Your task to perform on an android device: Open settings Image 0: 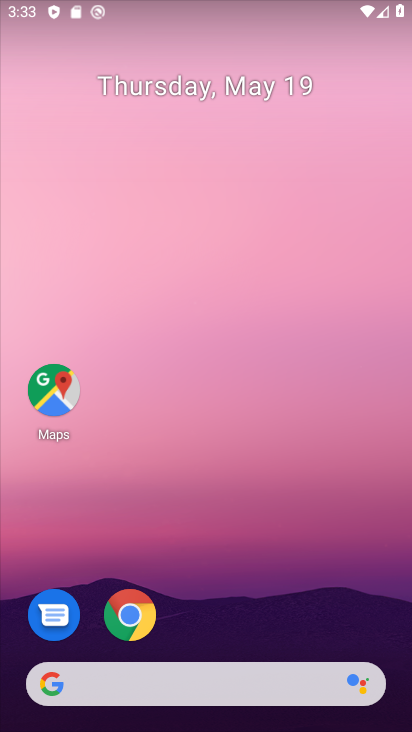
Step 0: drag from (290, 632) to (314, 3)
Your task to perform on an android device: Open settings Image 1: 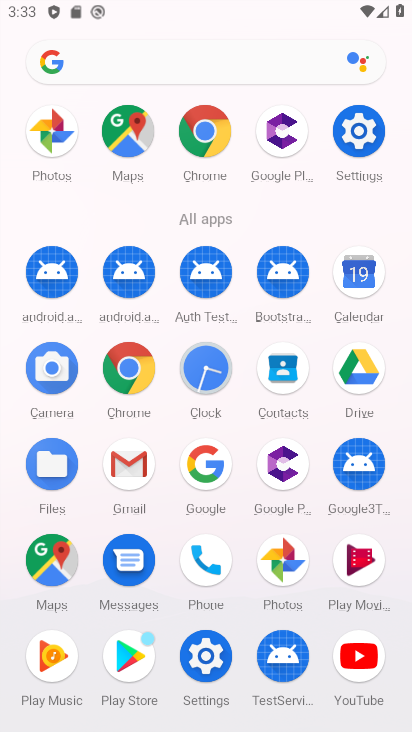
Step 1: click (353, 118)
Your task to perform on an android device: Open settings Image 2: 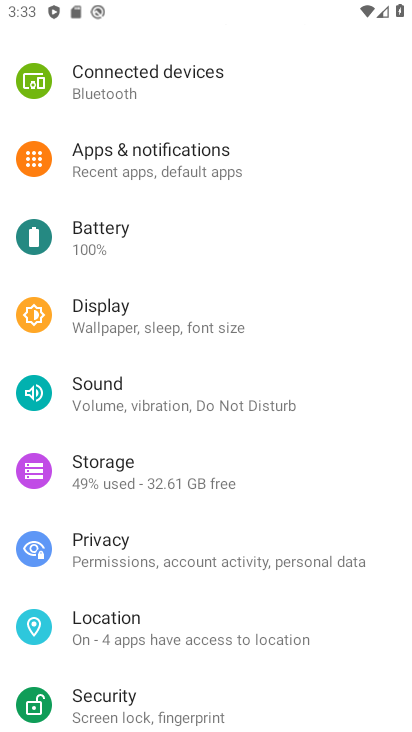
Step 2: task complete